Your task to perform on an android device: turn off javascript in the chrome app Image 0: 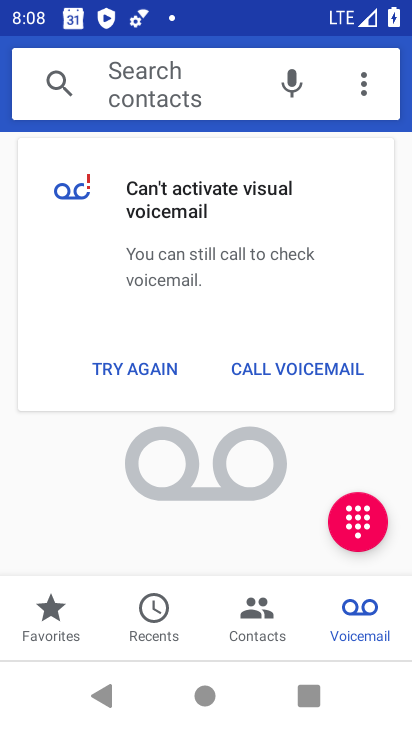
Step 0: press home button
Your task to perform on an android device: turn off javascript in the chrome app Image 1: 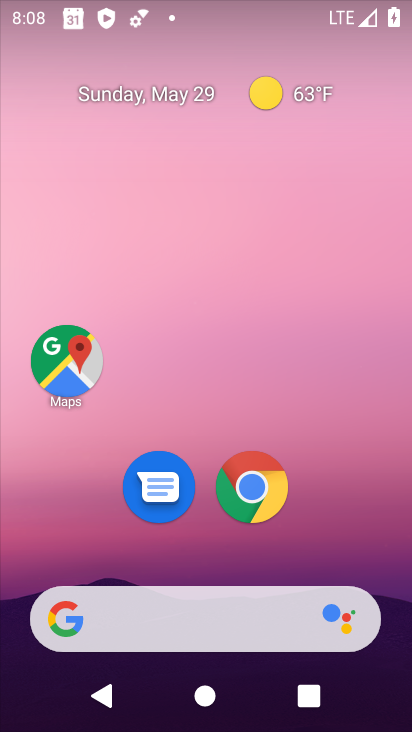
Step 1: click (258, 497)
Your task to perform on an android device: turn off javascript in the chrome app Image 2: 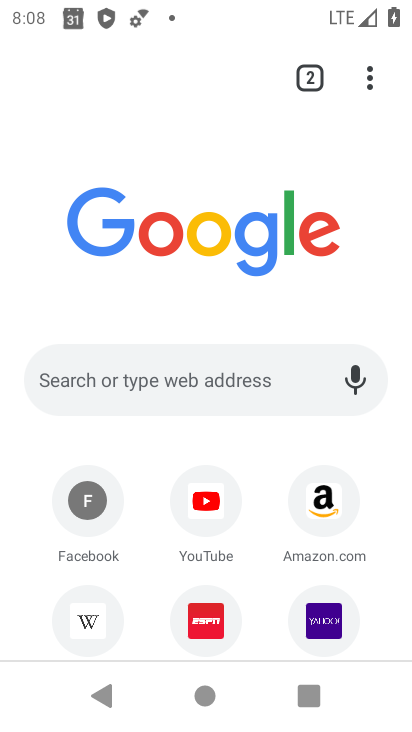
Step 2: click (372, 81)
Your task to perform on an android device: turn off javascript in the chrome app Image 3: 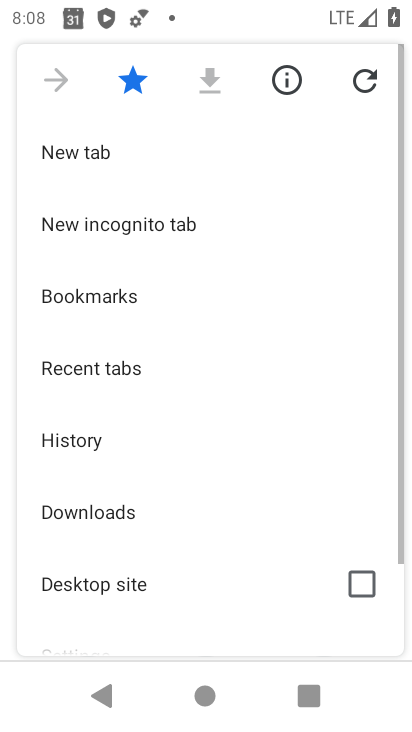
Step 3: drag from (141, 524) to (260, 12)
Your task to perform on an android device: turn off javascript in the chrome app Image 4: 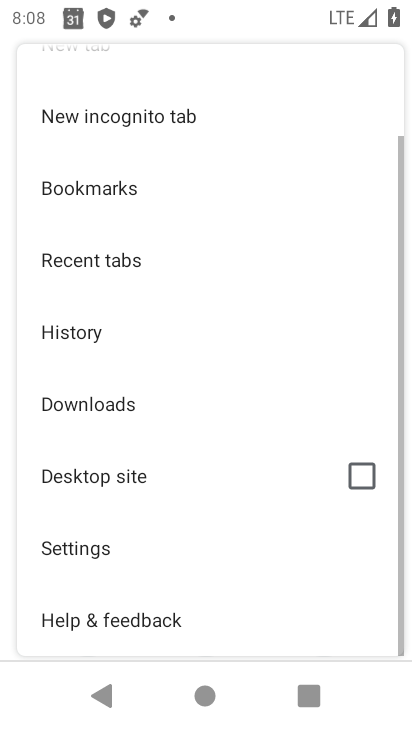
Step 4: click (147, 546)
Your task to perform on an android device: turn off javascript in the chrome app Image 5: 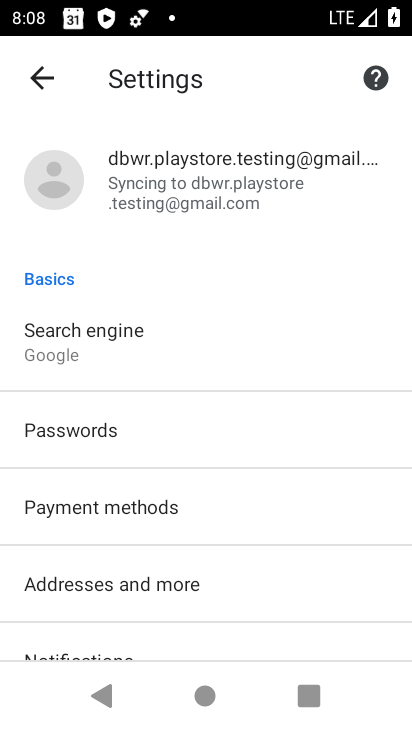
Step 5: drag from (194, 492) to (329, 59)
Your task to perform on an android device: turn off javascript in the chrome app Image 6: 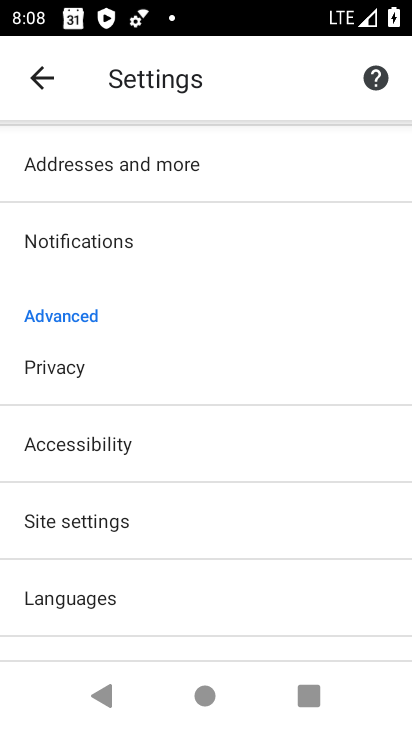
Step 6: click (105, 525)
Your task to perform on an android device: turn off javascript in the chrome app Image 7: 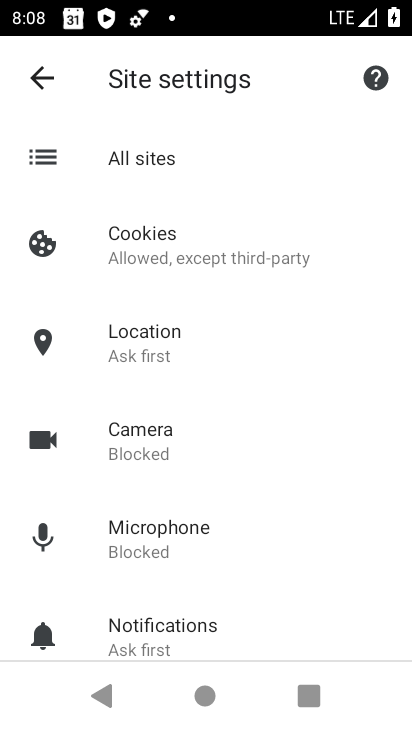
Step 7: drag from (170, 598) to (255, 50)
Your task to perform on an android device: turn off javascript in the chrome app Image 8: 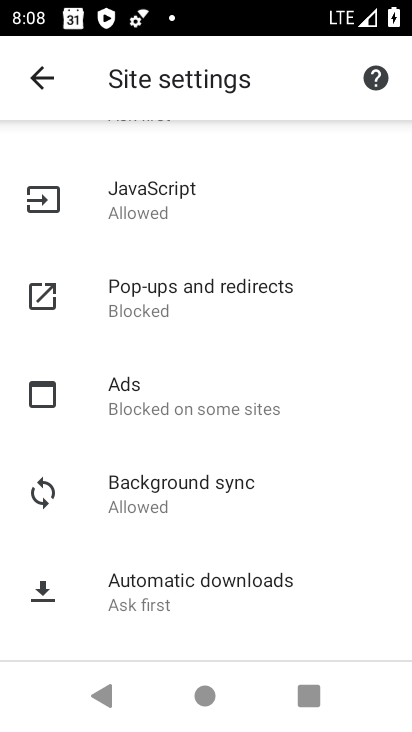
Step 8: drag from (207, 484) to (211, 420)
Your task to perform on an android device: turn off javascript in the chrome app Image 9: 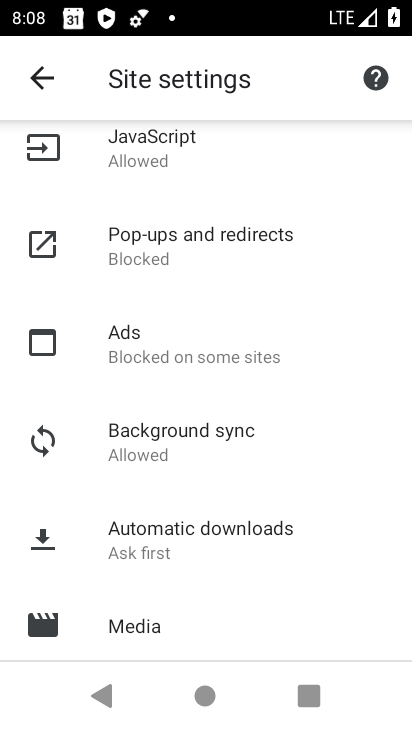
Step 9: click (227, 167)
Your task to perform on an android device: turn off javascript in the chrome app Image 10: 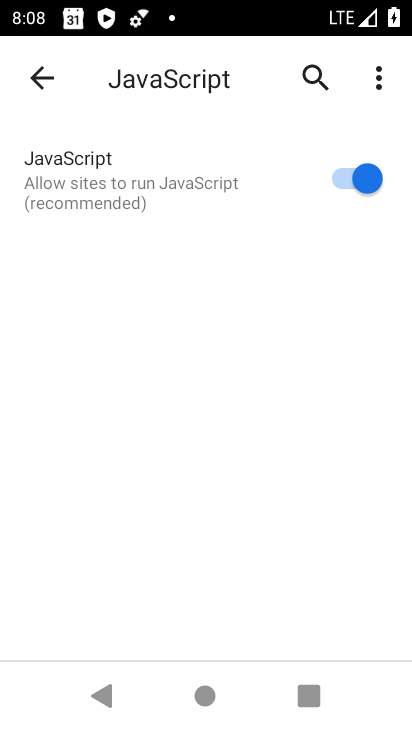
Step 10: click (341, 184)
Your task to perform on an android device: turn off javascript in the chrome app Image 11: 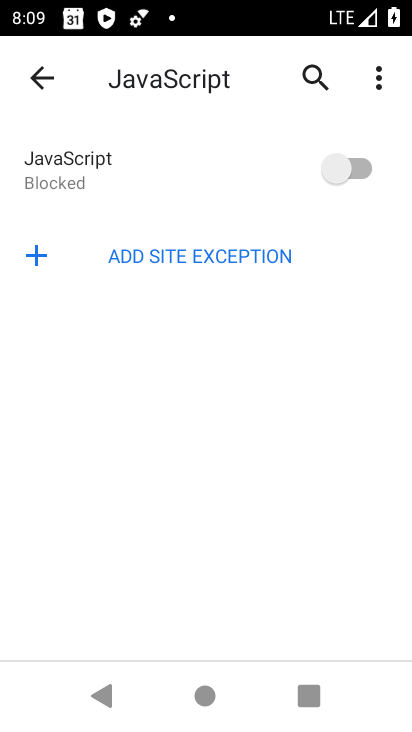
Step 11: task complete